Your task to perform on an android device: delete the emails in spam in the gmail app Image 0: 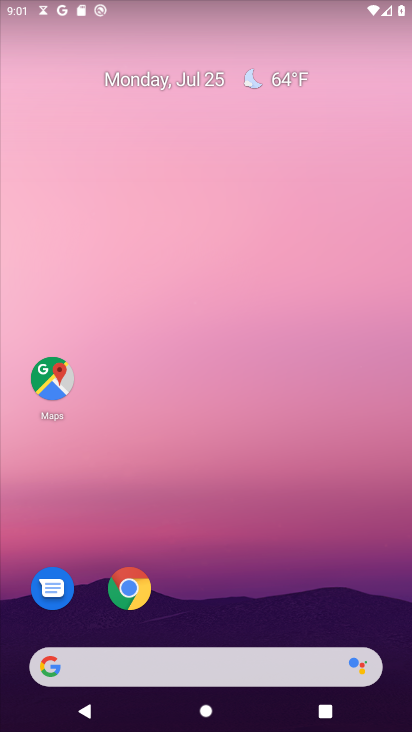
Step 0: drag from (204, 656) to (233, 217)
Your task to perform on an android device: delete the emails in spam in the gmail app Image 1: 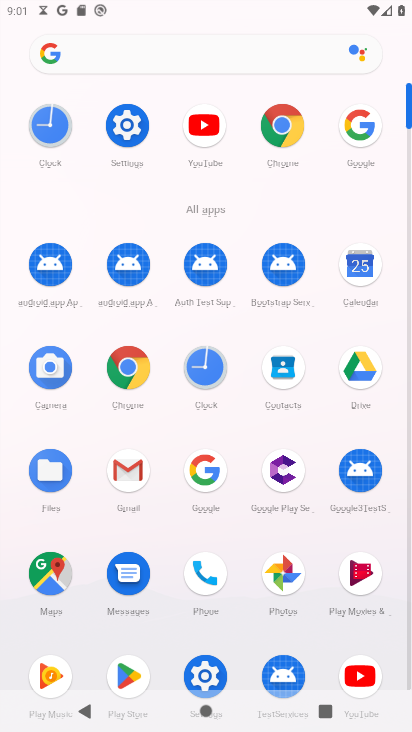
Step 1: click (117, 484)
Your task to perform on an android device: delete the emails in spam in the gmail app Image 2: 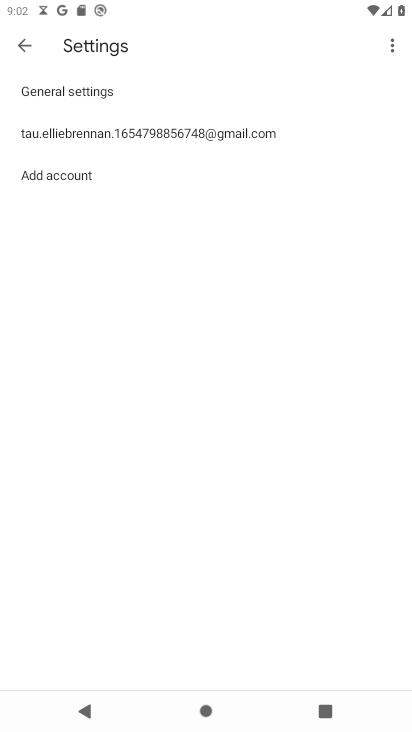
Step 2: click (22, 49)
Your task to perform on an android device: delete the emails in spam in the gmail app Image 3: 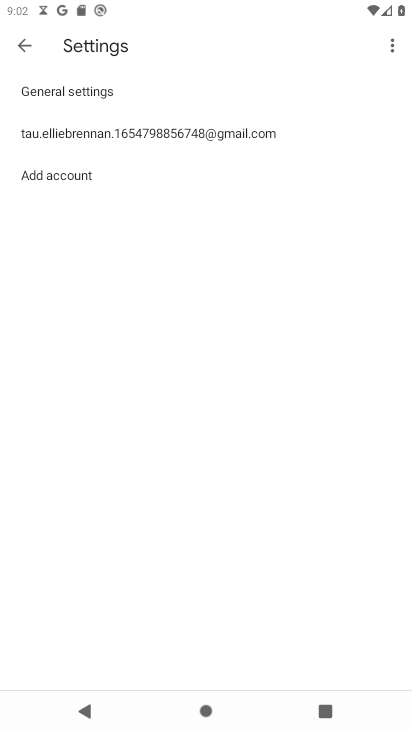
Step 3: click (26, 44)
Your task to perform on an android device: delete the emails in spam in the gmail app Image 4: 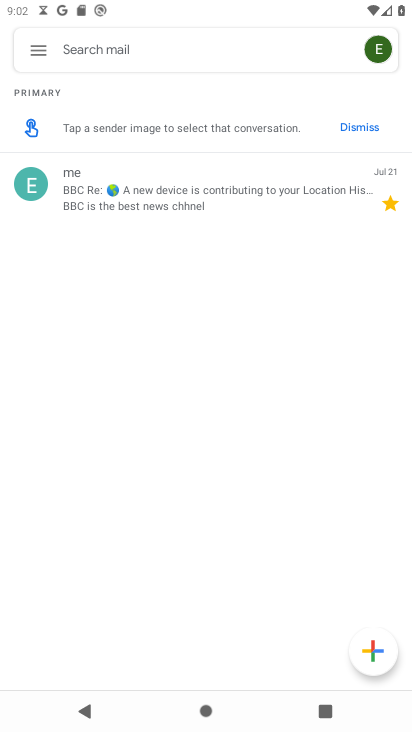
Step 4: click (43, 53)
Your task to perform on an android device: delete the emails in spam in the gmail app Image 5: 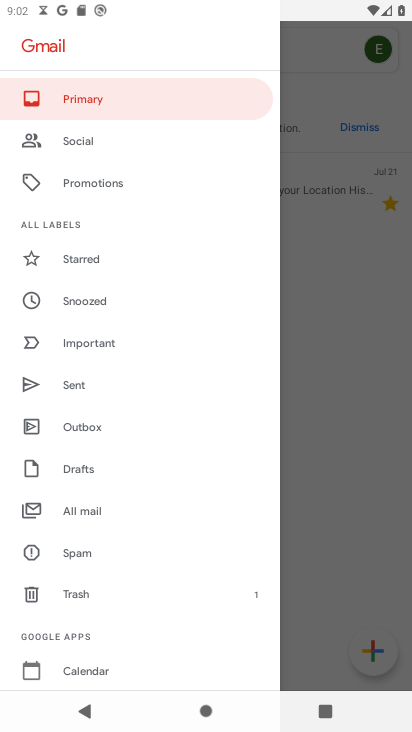
Step 5: click (91, 545)
Your task to perform on an android device: delete the emails in spam in the gmail app Image 6: 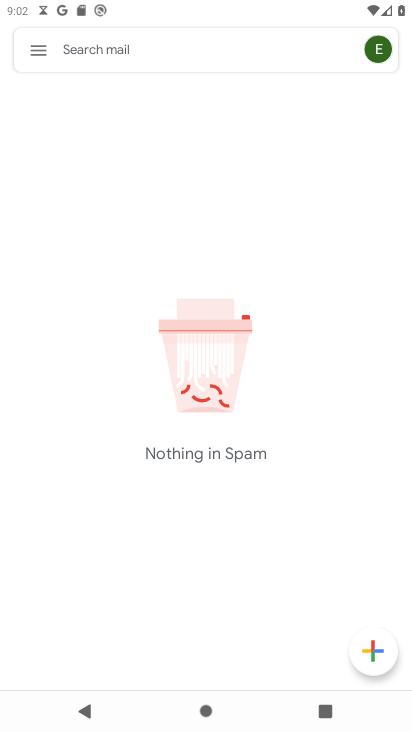
Step 6: task complete